Your task to perform on an android device: Open Google Image 0: 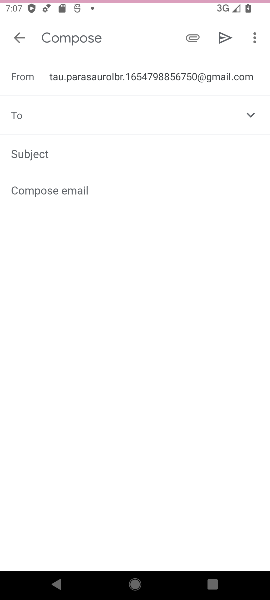
Step 0: press home button
Your task to perform on an android device: Open Google Image 1: 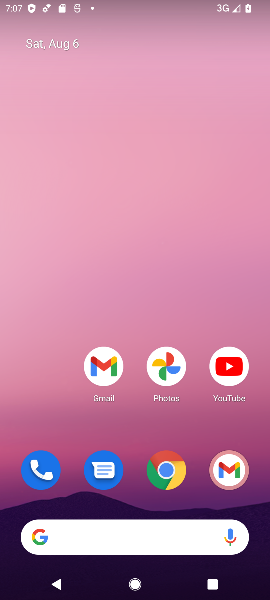
Step 1: drag from (48, 396) to (90, 4)
Your task to perform on an android device: Open Google Image 2: 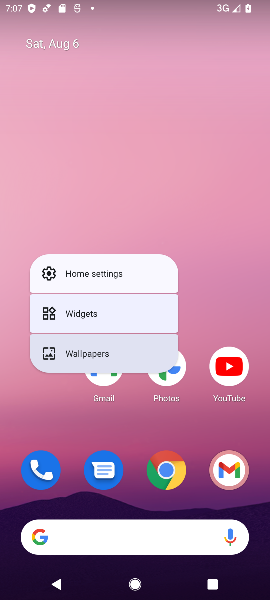
Step 2: click (50, 120)
Your task to perform on an android device: Open Google Image 3: 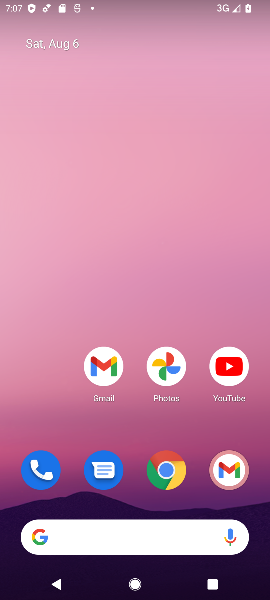
Step 3: drag from (63, 381) to (80, 54)
Your task to perform on an android device: Open Google Image 4: 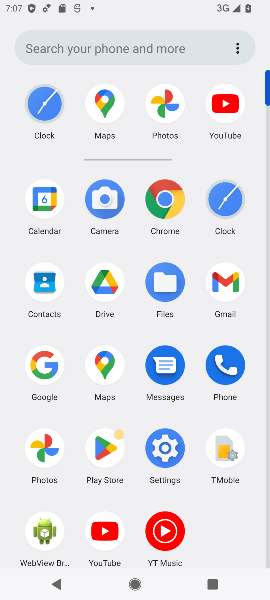
Step 4: click (42, 372)
Your task to perform on an android device: Open Google Image 5: 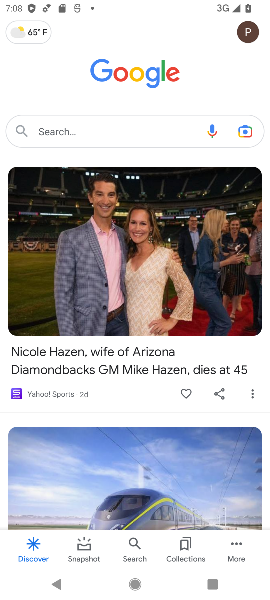
Step 5: task complete